Your task to perform on an android device: turn off picture-in-picture Image 0: 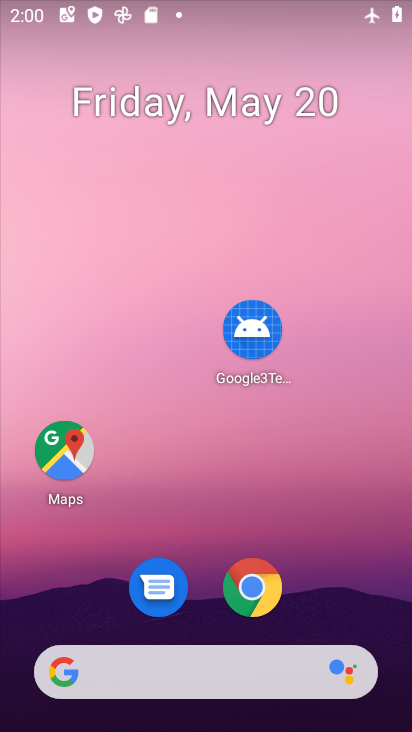
Step 0: drag from (331, 559) to (186, 0)
Your task to perform on an android device: turn off picture-in-picture Image 1: 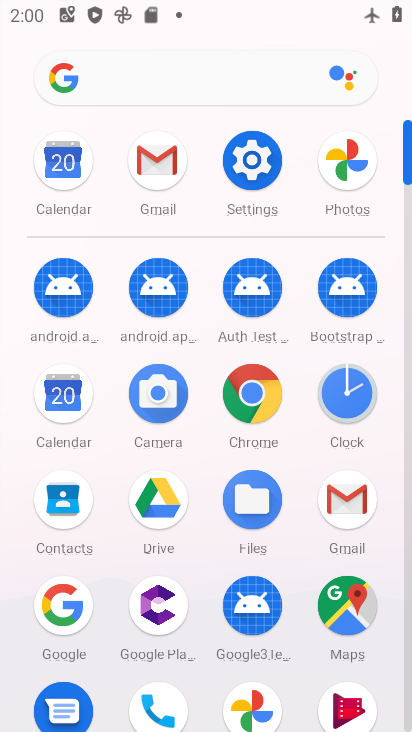
Step 1: click (251, 157)
Your task to perform on an android device: turn off picture-in-picture Image 2: 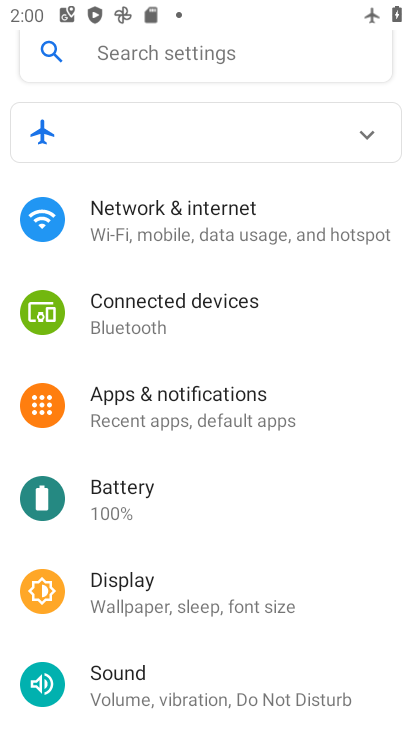
Step 2: drag from (245, 501) to (240, 151)
Your task to perform on an android device: turn off picture-in-picture Image 3: 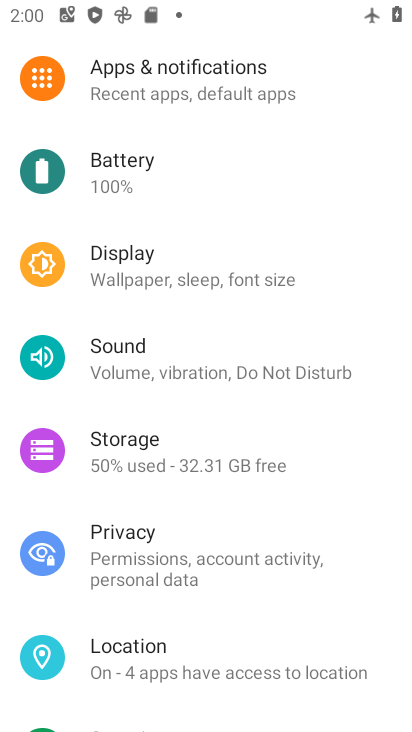
Step 3: click (152, 59)
Your task to perform on an android device: turn off picture-in-picture Image 4: 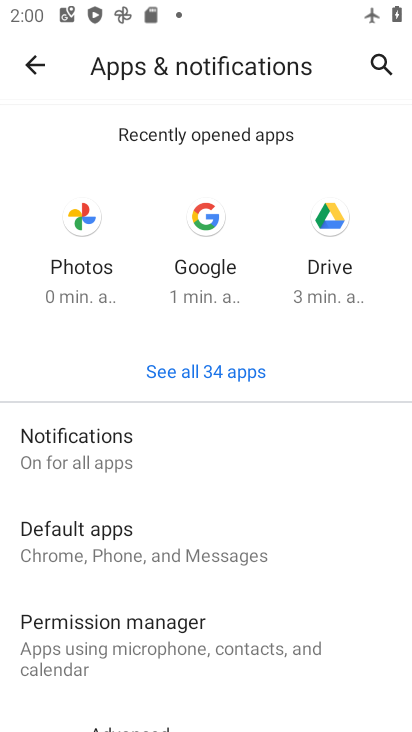
Step 4: drag from (238, 471) to (240, 163)
Your task to perform on an android device: turn off picture-in-picture Image 5: 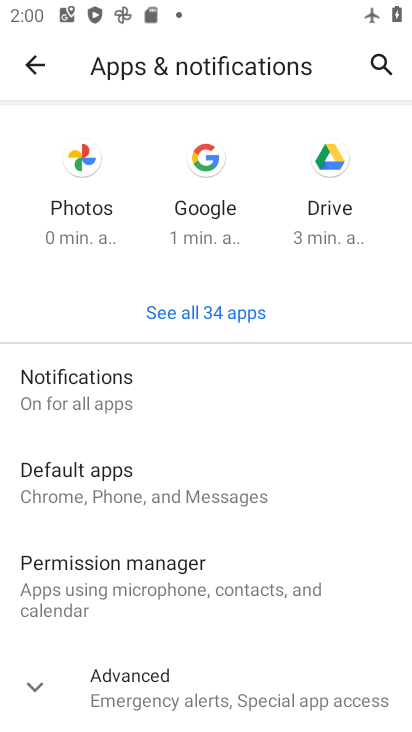
Step 5: click (36, 687)
Your task to perform on an android device: turn off picture-in-picture Image 6: 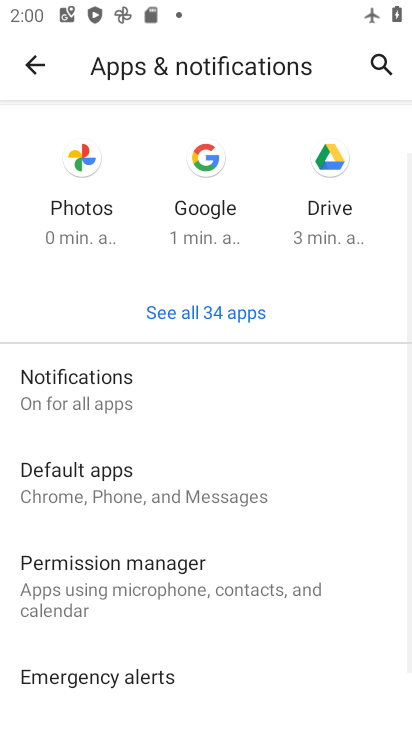
Step 6: drag from (269, 613) to (241, 132)
Your task to perform on an android device: turn off picture-in-picture Image 7: 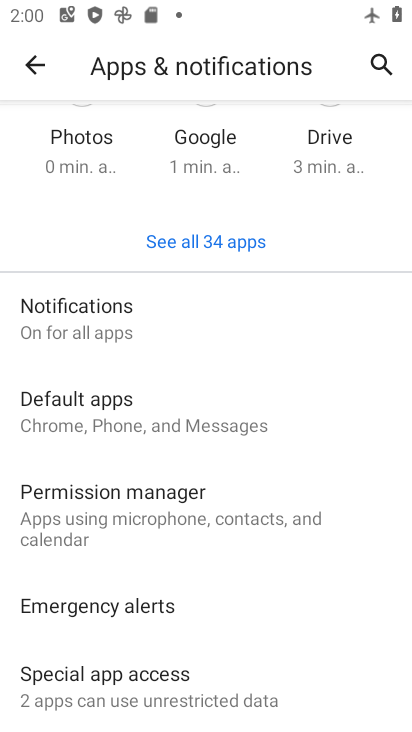
Step 7: click (117, 668)
Your task to perform on an android device: turn off picture-in-picture Image 8: 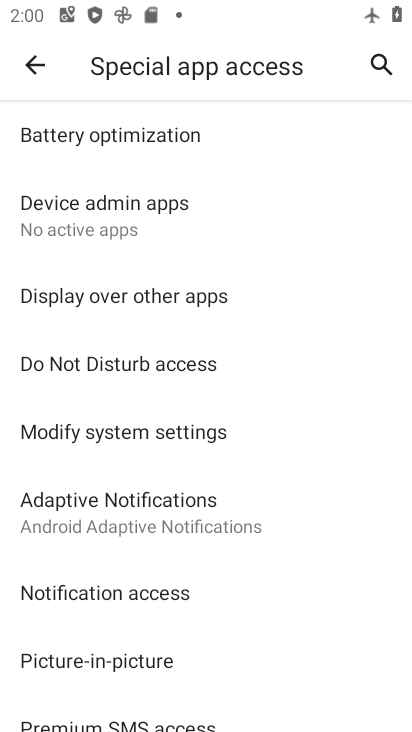
Step 8: drag from (276, 400) to (208, 1)
Your task to perform on an android device: turn off picture-in-picture Image 9: 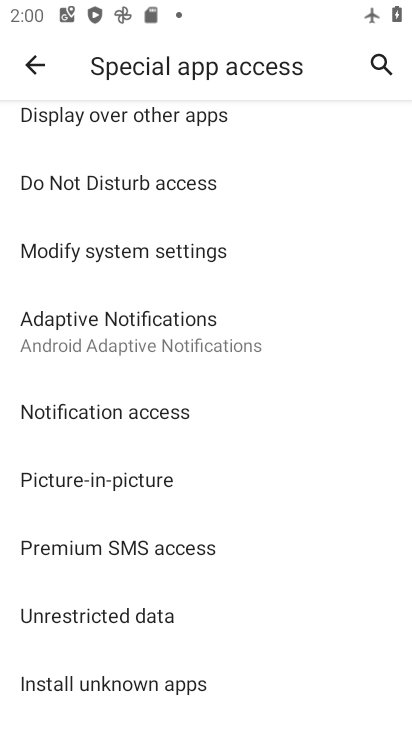
Step 9: click (83, 476)
Your task to perform on an android device: turn off picture-in-picture Image 10: 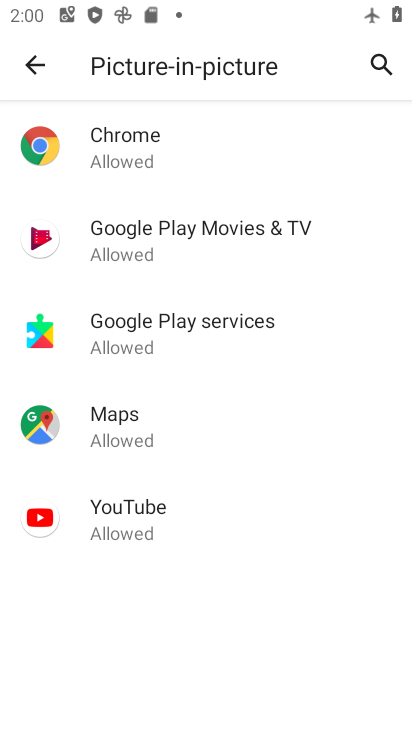
Step 10: click (119, 142)
Your task to perform on an android device: turn off picture-in-picture Image 11: 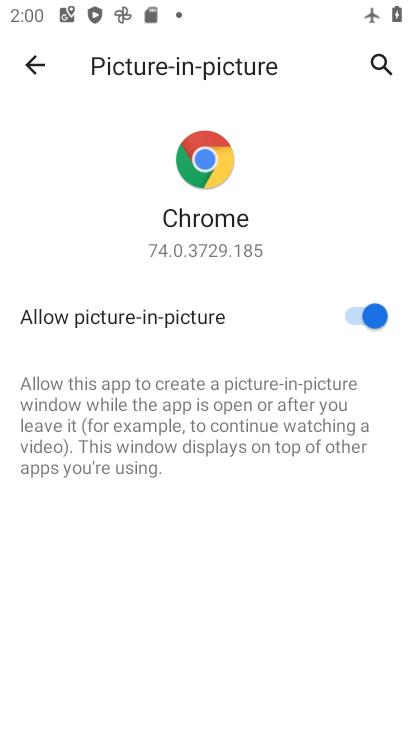
Step 11: click (366, 304)
Your task to perform on an android device: turn off picture-in-picture Image 12: 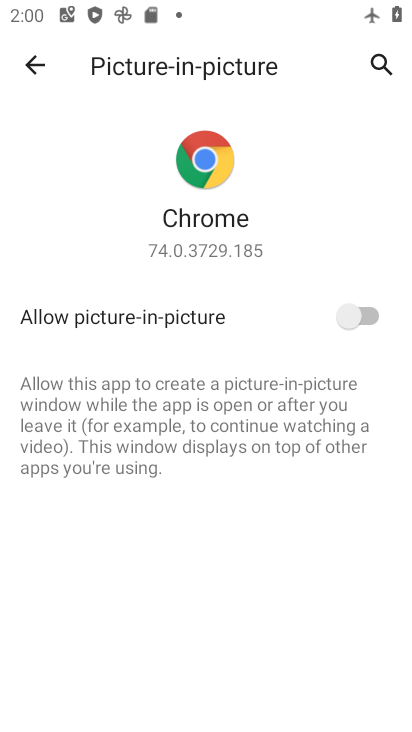
Step 12: click (30, 72)
Your task to perform on an android device: turn off picture-in-picture Image 13: 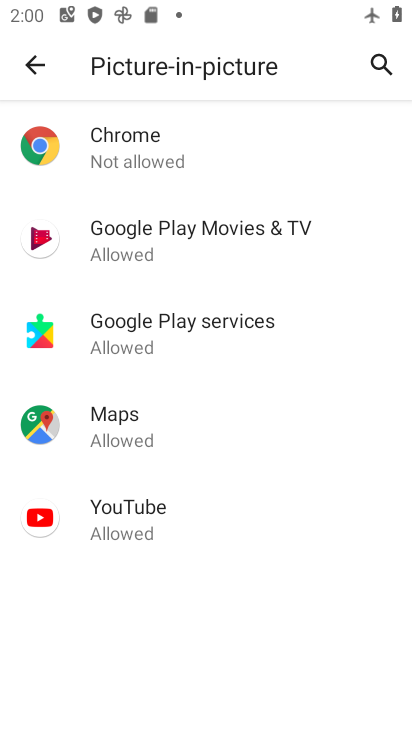
Step 13: click (136, 252)
Your task to perform on an android device: turn off picture-in-picture Image 14: 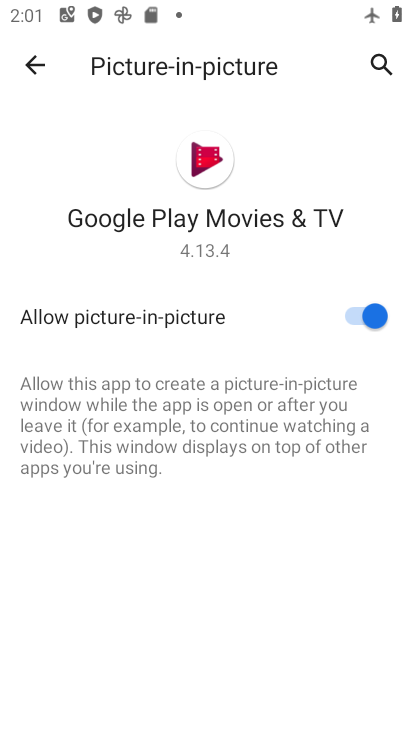
Step 14: click (359, 315)
Your task to perform on an android device: turn off picture-in-picture Image 15: 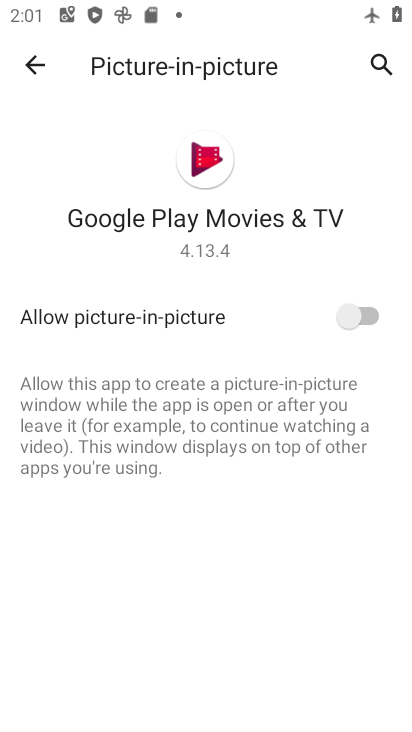
Step 15: click (35, 64)
Your task to perform on an android device: turn off picture-in-picture Image 16: 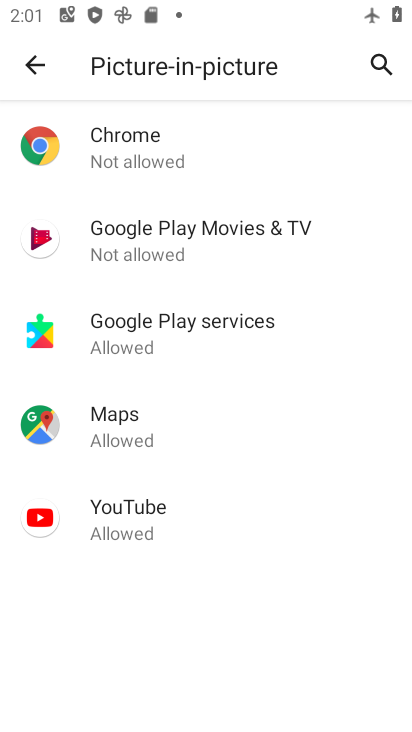
Step 16: click (127, 336)
Your task to perform on an android device: turn off picture-in-picture Image 17: 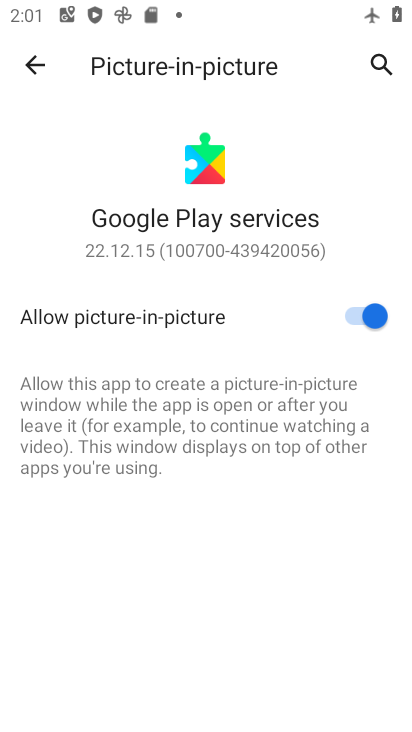
Step 17: click (367, 309)
Your task to perform on an android device: turn off picture-in-picture Image 18: 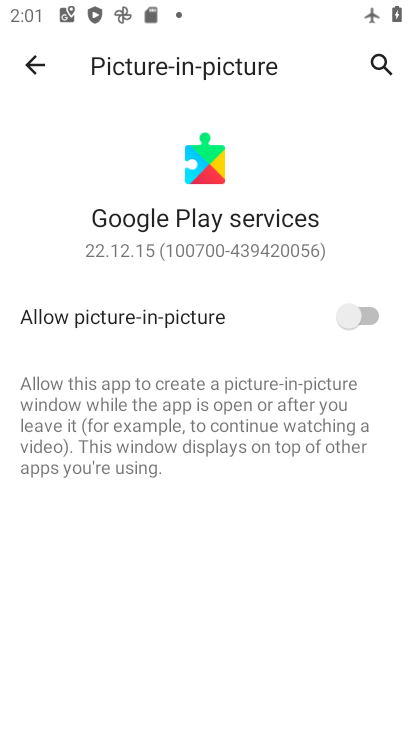
Step 18: click (34, 62)
Your task to perform on an android device: turn off picture-in-picture Image 19: 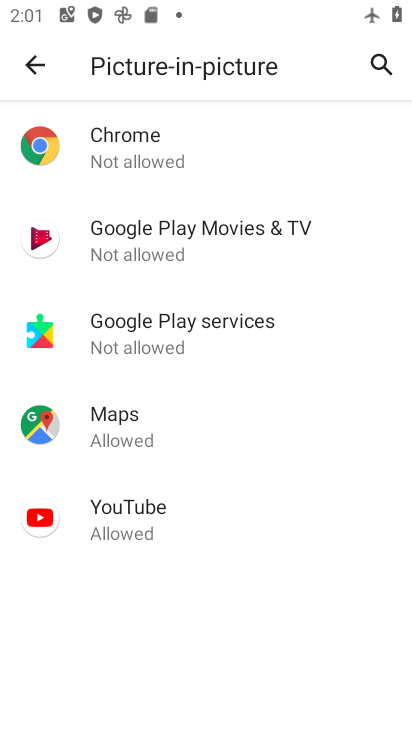
Step 19: click (129, 417)
Your task to perform on an android device: turn off picture-in-picture Image 20: 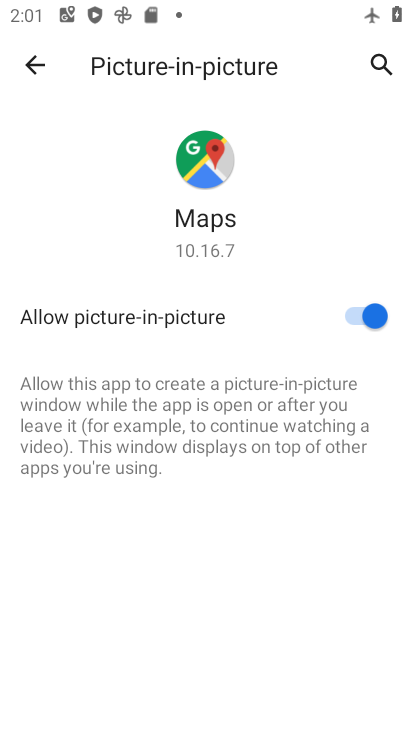
Step 20: click (364, 317)
Your task to perform on an android device: turn off picture-in-picture Image 21: 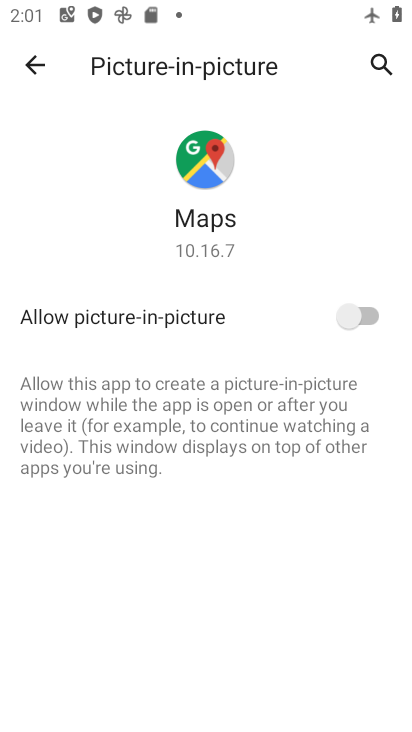
Step 21: click (34, 57)
Your task to perform on an android device: turn off picture-in-picture Image 22: 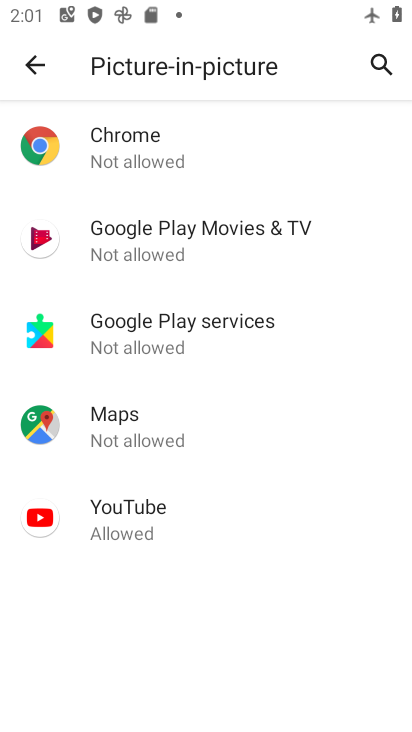
Step 22: click (150, 512)
Your task to perform on an android device: turn off picture-in-picture Image 23: 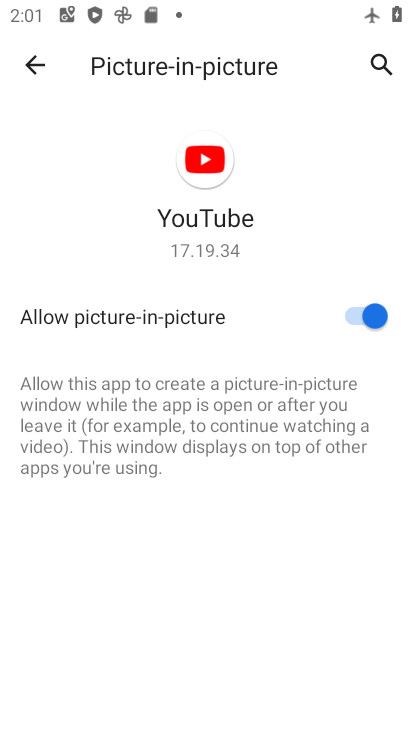
Step 23: click (373, 308)
Your task to perform on an android device: turn off picture-in-picture Image 24: 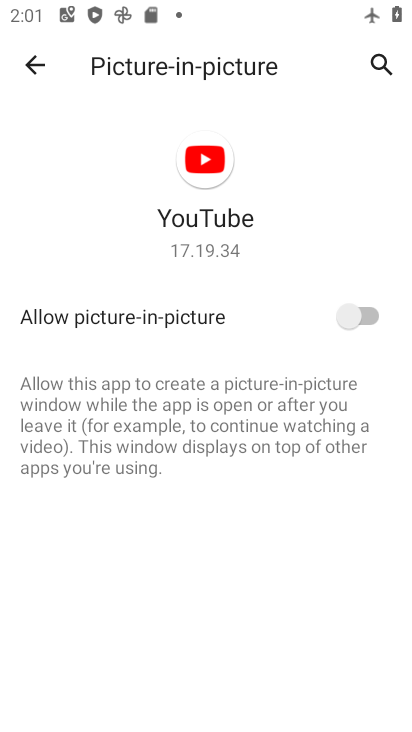
Step 24: task complete